Your task to perform on an android device: Open Google Maps and go to "Timeline" Image 0: 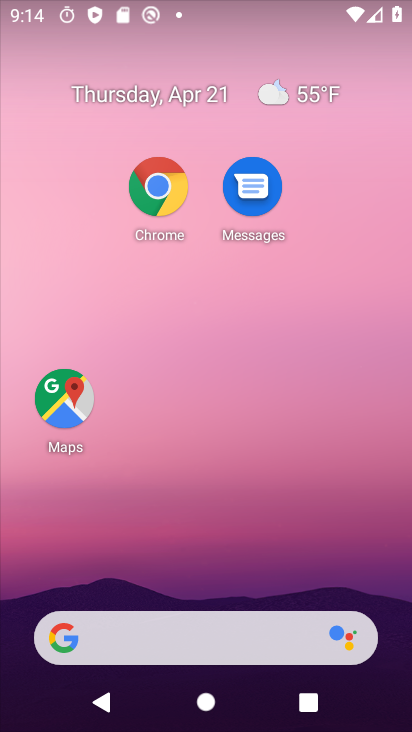
Step 0: click (58, 410)
Your task to perform on an android device: Open Google Maps and go to "Timeline" Image 1: 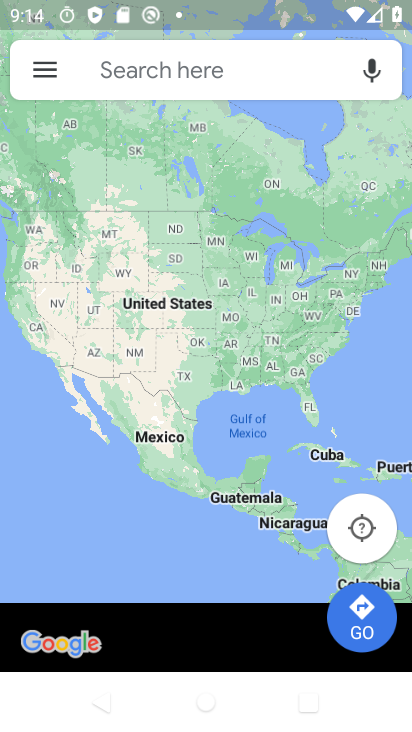
Step 1: click (37, 66)
Your task to perform on an android device: Open Google Maps and go to "Timeline" Image 2: 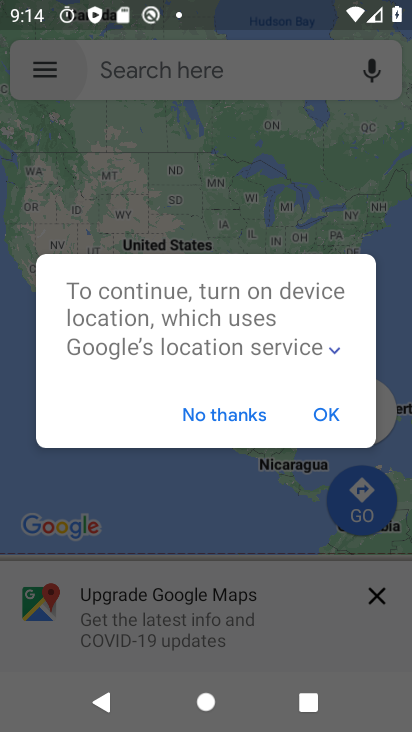
Step 2: click (47, 63)
Your task to perform on an android device: Open Google Maps and go to "Timeline" Image 3: 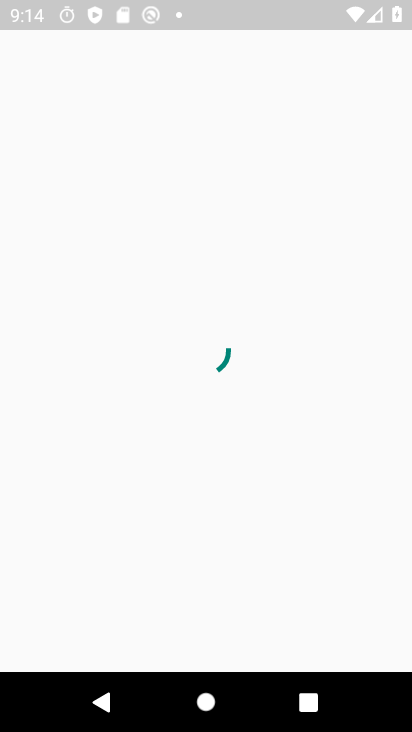
Step 3: click (328, 421)
Your task to perform on an android device: Open Google Maps and go to "Timeline" Image 4: 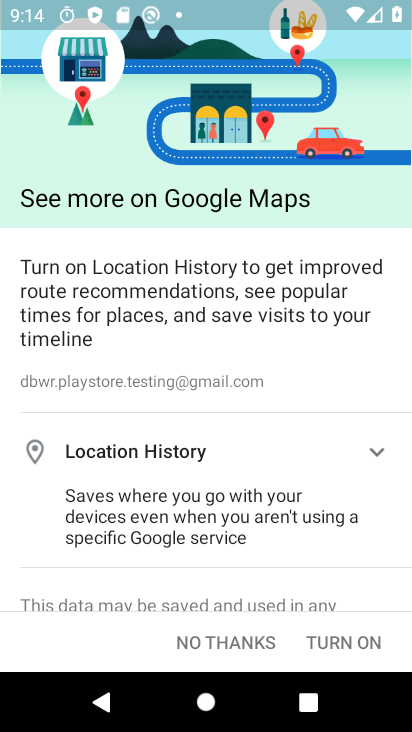
Step 4: click (348, 643)
Your task to perform on an android device: Open Google Maps and go to "Timeline" Image 5: 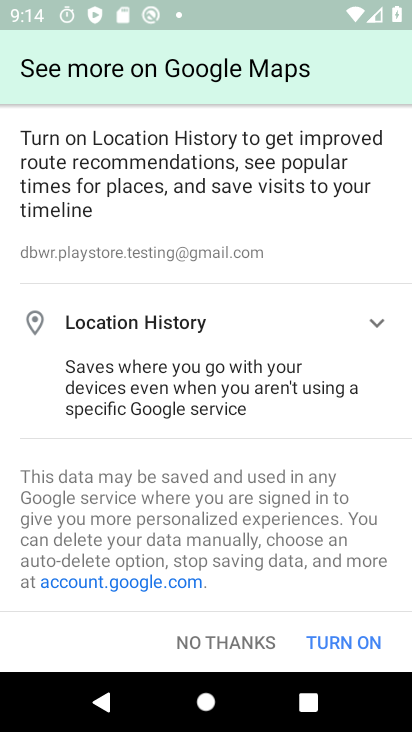
Step 5: click (347, 642)
Your task to perform on an android device: Open Google Maps and go to "Timeline" Image 6: 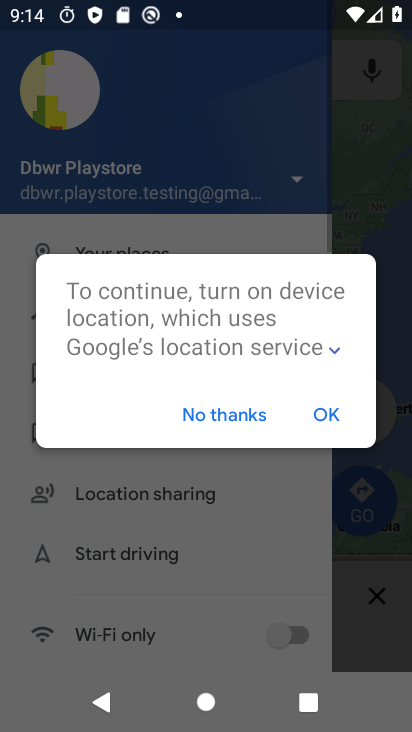
Step 6: click (326, 420)
Your task to perform on an android device: Open Google Maps and go to "Timeline" Image 7: 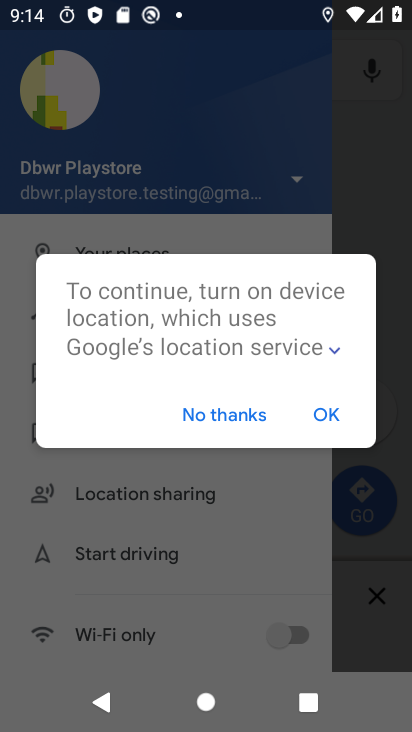
Step 7: click (329, 411)
Your task to perform on an android device: Open Google Maps and go to "Timeline" Image 8: 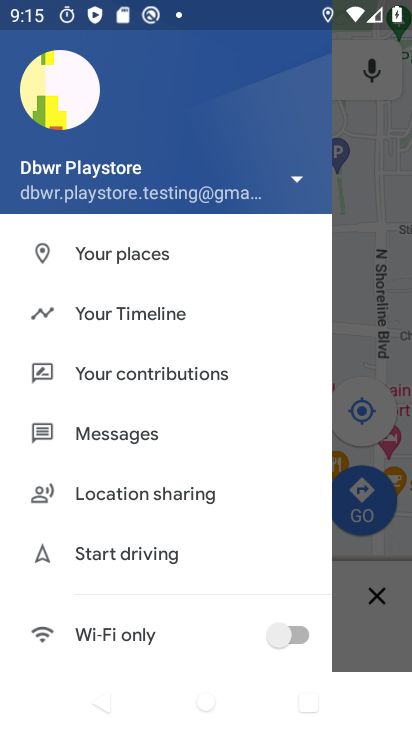
Step 8: click (119, 311)
Your task to perform on an android device: Open Google Maps and go to "Timeline" Image 9: 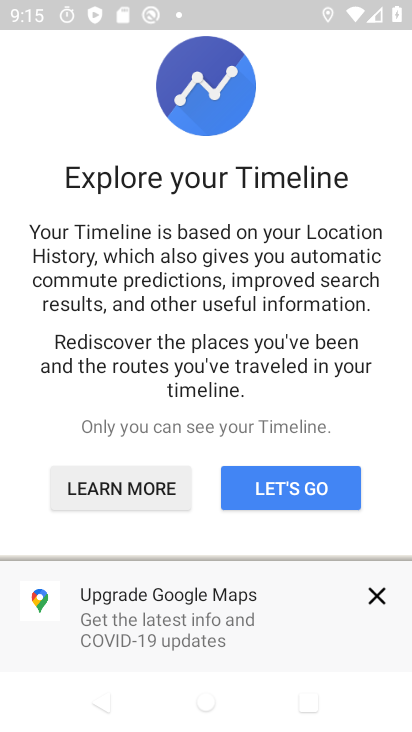
Step 9: click (374, 592)
Your task to perform on an android device: Open Google Maps and go to "Timeline" Image 10: 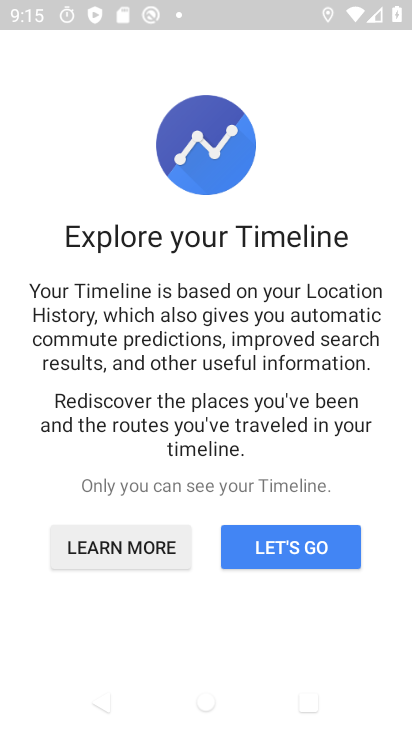
Step 10: click (289, 540)
Your task to perform on an android device: Open Google Maps and go to "Timeline" Image 11: 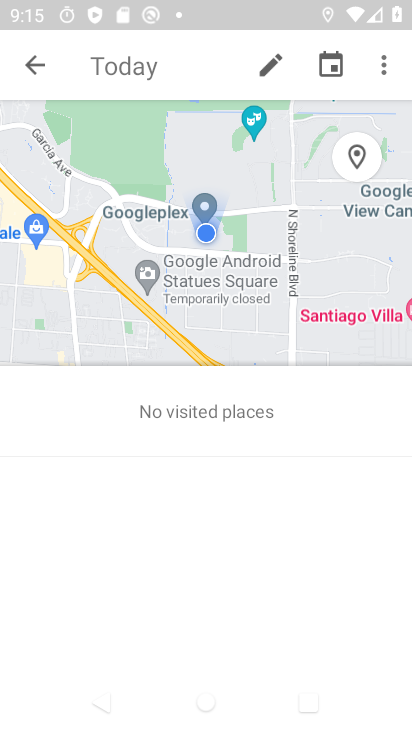
Step 11: task complete